Your task to perform on an android device: Open wifi settings Image 0: 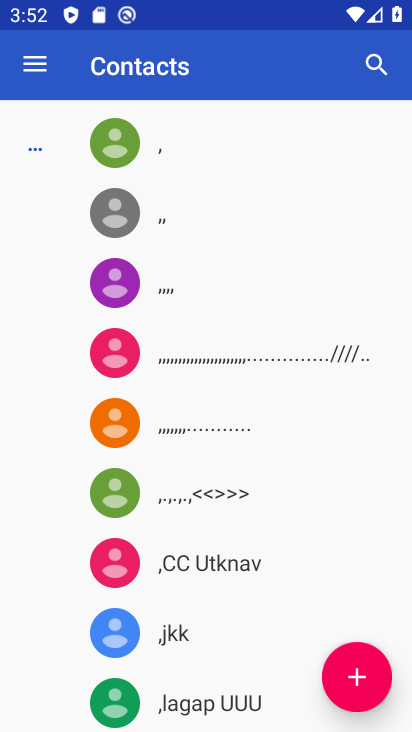
Step 0: press home button
Your task to perform on an android device: Open wifi settings Image 1: 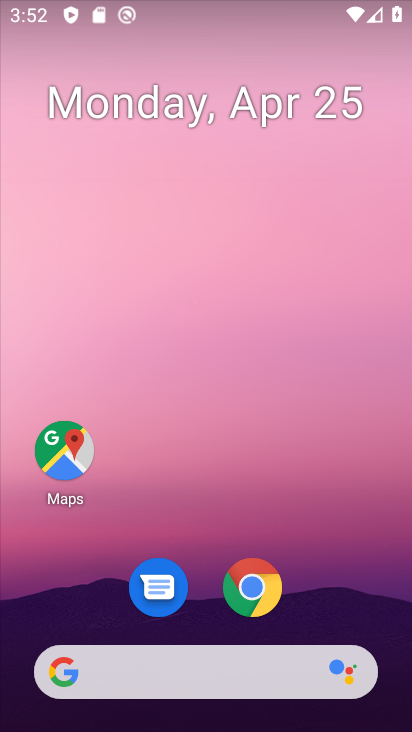
Step 1: drag from (203, 586) to (215, 92)
Your task to perform on an android device: Open wifi settings Image 2: 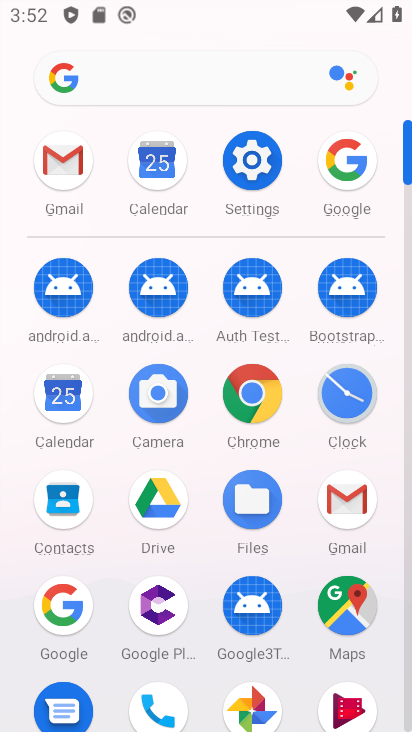
Step 2: click (253, 155)
Your task to perform on an android device: Open wifi settings Image 3: 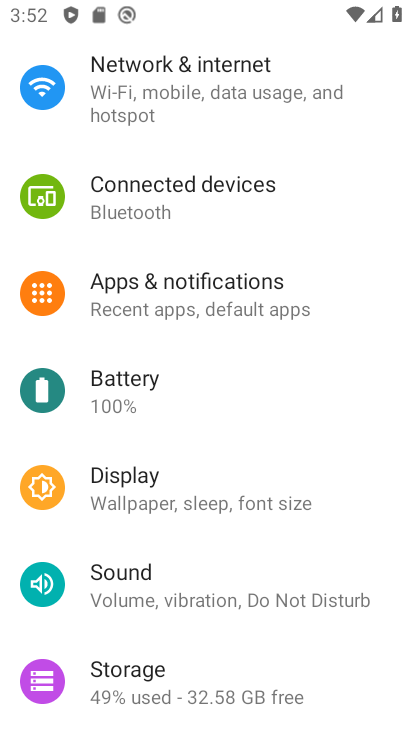
Step 3: click (198, 100)
Your task to perform on an android device: Open wifi settings Image 4: 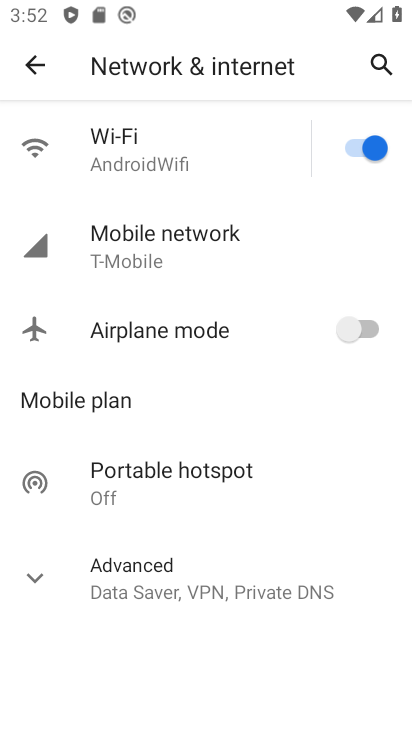
Step 4: click (194, 168)
Your task to perform on an android device: Open wifi settings Image 5: 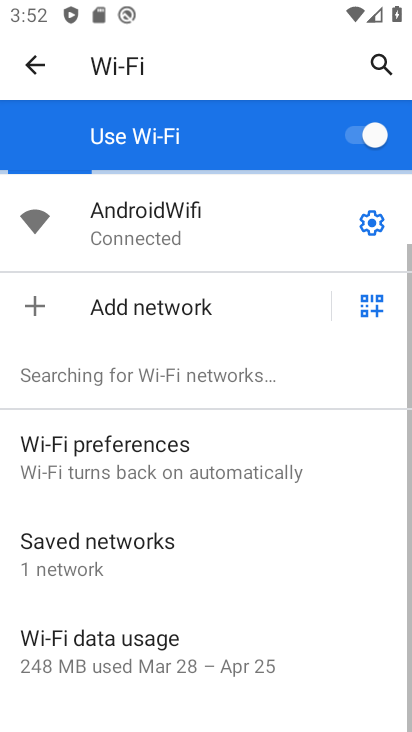
Step 5: click (198, 233)
Your task to perform on an android device: Open wifi settings Image 6: 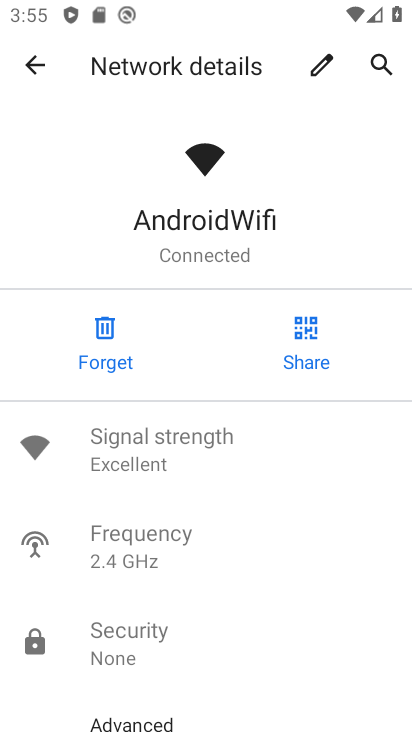
Step 6: task complete